Your task to perform on an android device: add a contact in the contacts app Image 0: 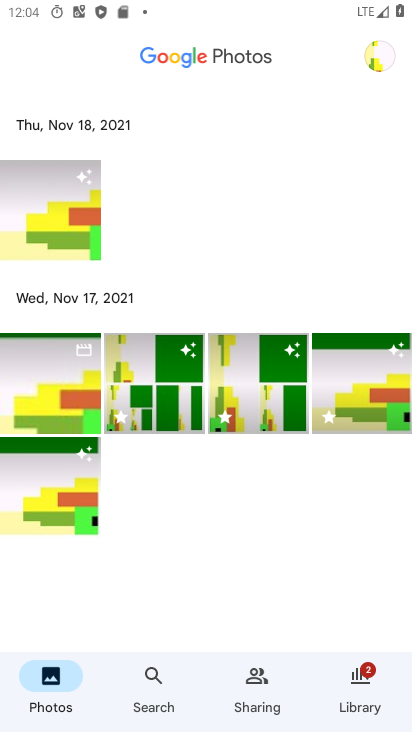
Step 0: press home button
Your task to perform on an android device: add a contact in the contacts app Image 1: 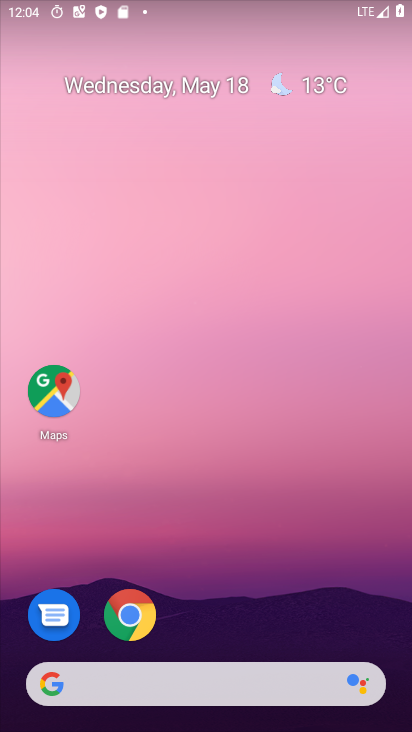
Step 1: drag from (206, 576) to (310, 177)
Your task to perform on an android device: add a contact in the contacts app Image 2: 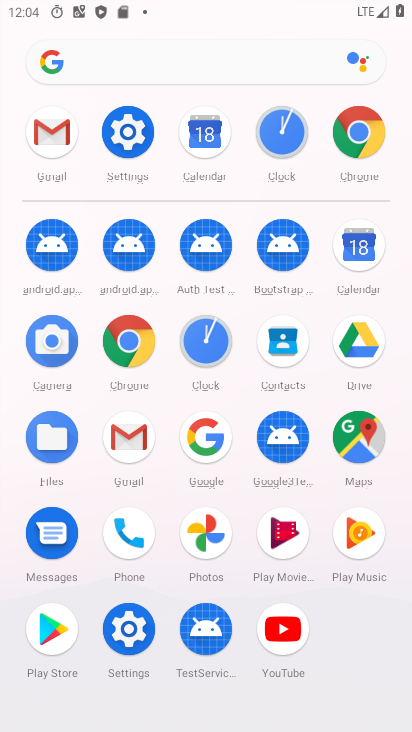
Step 2: click (281, 343)
Your task to perform on an android device: add a contact in the contacts app Image 3: 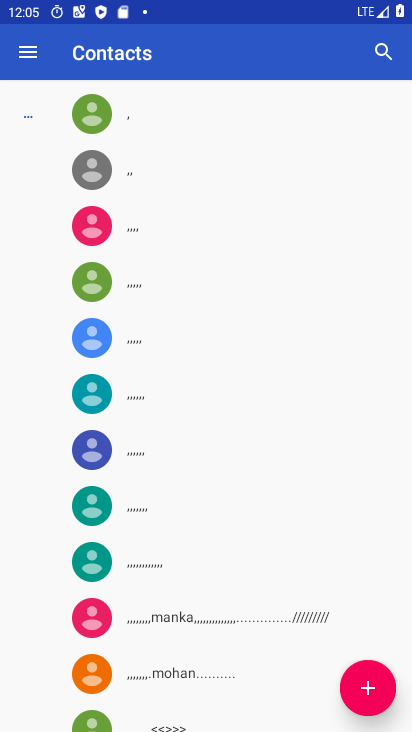
Step 3: click (360, 689)
Your task to perform on an android device: add a contact in the contacts app Image 4: 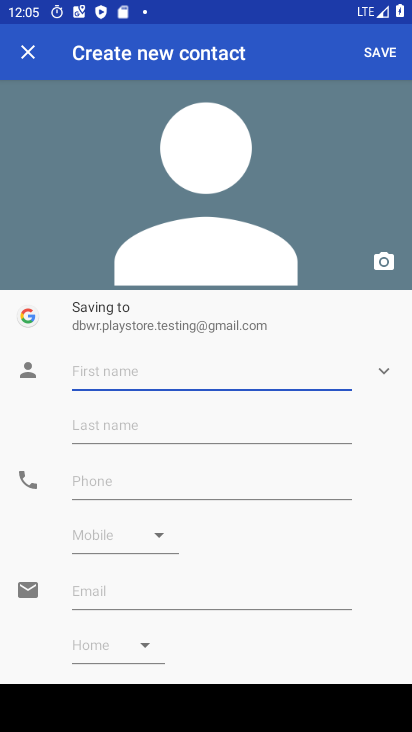
Step 4: click (140, 358)
Your task to perform on an android device: add a contact in the contacts app Image 5: 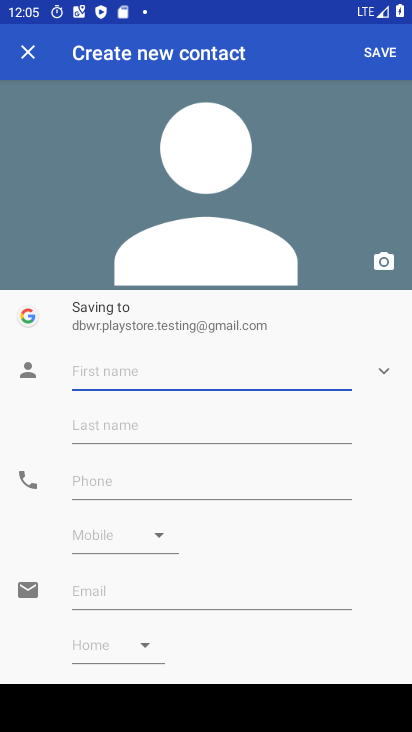
Step 5: type "hytfffg"
Your task to perform on an android device: add a contact in the contacts app Image 6: 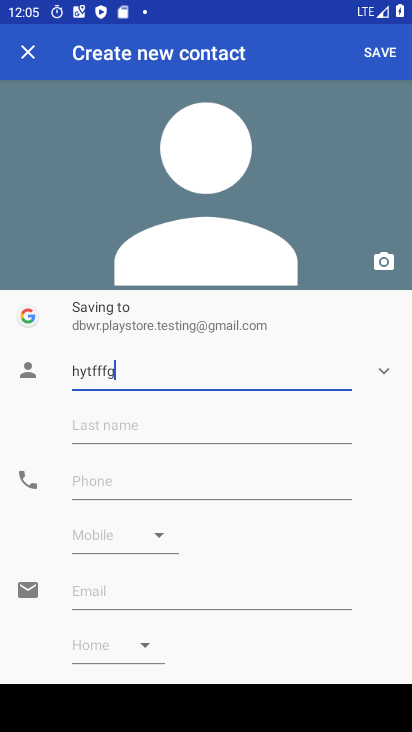
Step 6: click (107, 485)
Your task to perform on an android device: add a contact in the contacts app Image 7: 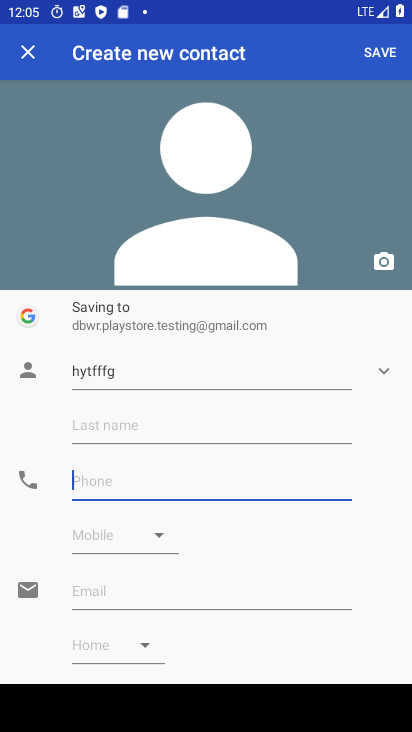
Step 7: type "45564476"
Your task to perform on an android device: add a contact in the contacts app Image 8: 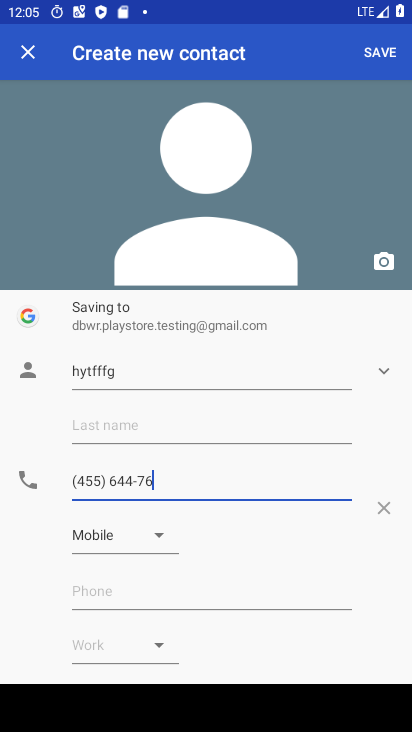
Step 8: click (394, 56)
Your task to perform on an android device: add a contact in the contacts app Image 9: 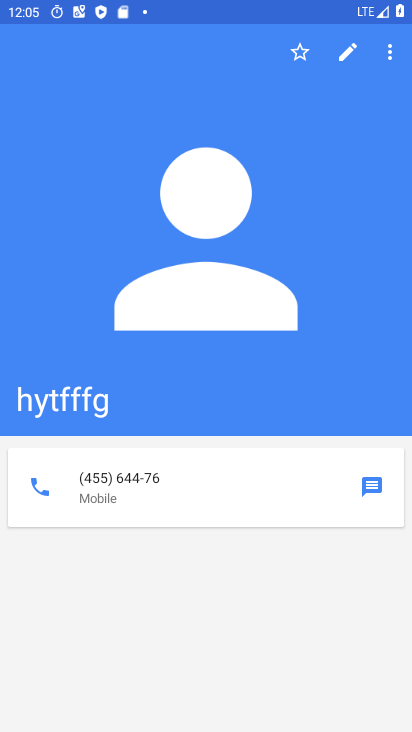
Step 9: task complete